Your task to perform on an android device: turn off data saver in the chrome app Image 0: 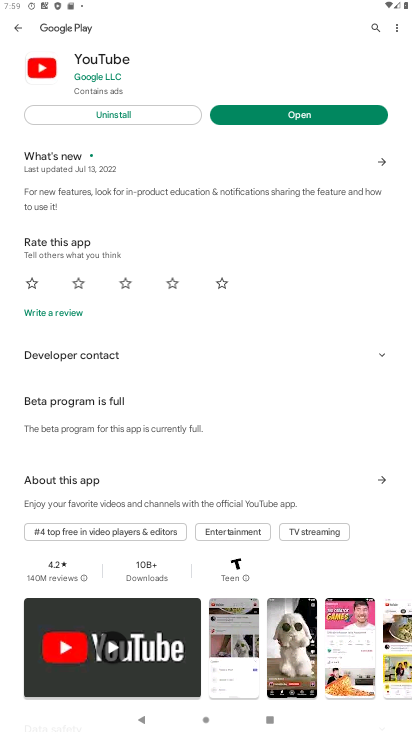
Step 0: press home button
Your task to perform on an android device: turn off data saver in the chrome app Image 1: 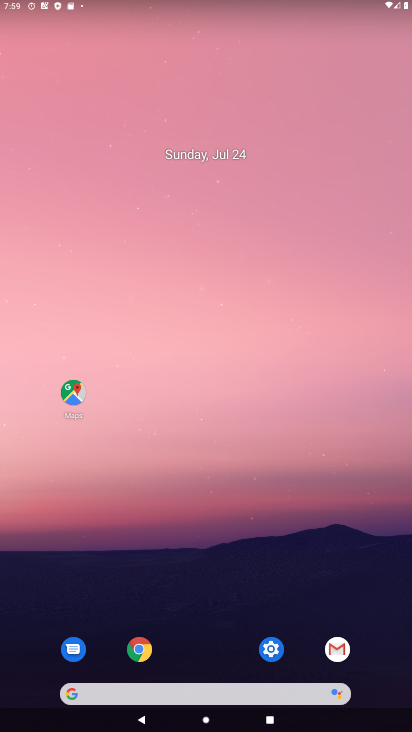
Step 1: click (152, 646)
Your task to perform on an android device: turn off data saver in the chrome app Image 2: 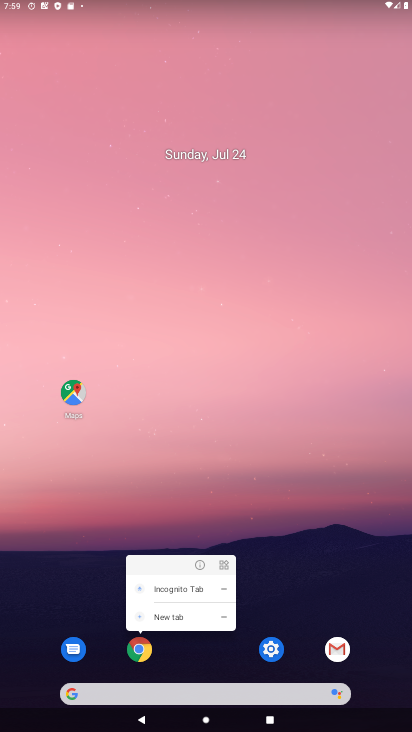
Step 2: click (141, 663)
Your task to perform on an android device: turn off data saver in the chrome app Image 3: 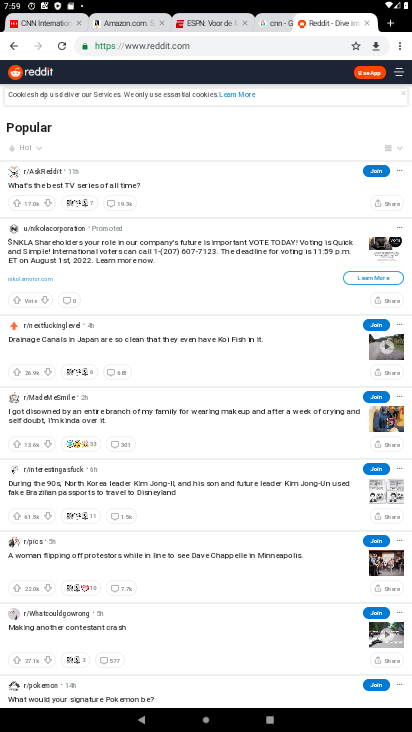
Step 3: click (400, 44)
Your task to perform on an android device: turn off data saver in the chrome app Image 4: 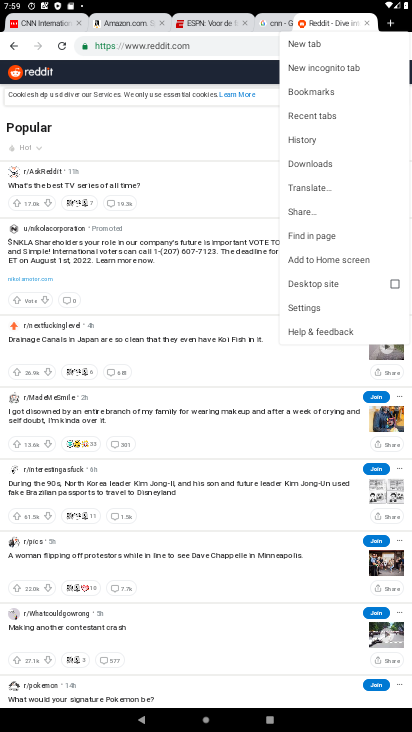
Step 4: click (304, 305)
Your task to perform on an android device: turn off data saver in the chrome app Image 5: 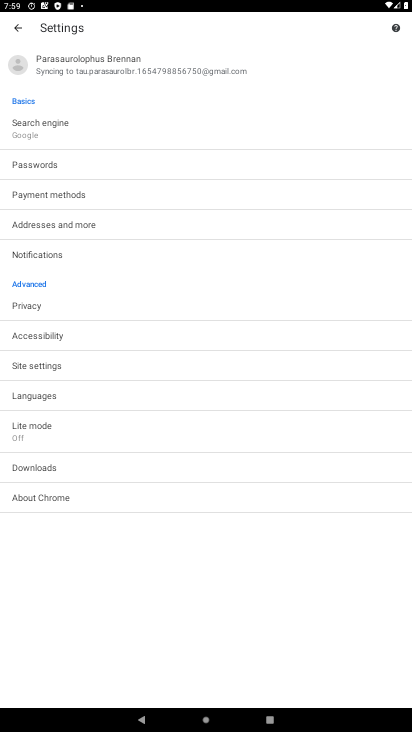
Step 5: click (31, 426)
Your task to perform on an android device: turn off data saver in the chrome app Image 6: 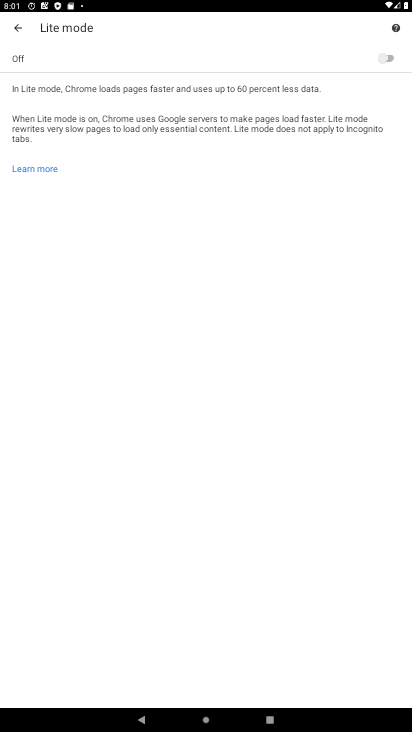
Step 6: task complete